Your task to perform on an android device: Go to network settings Image 0: 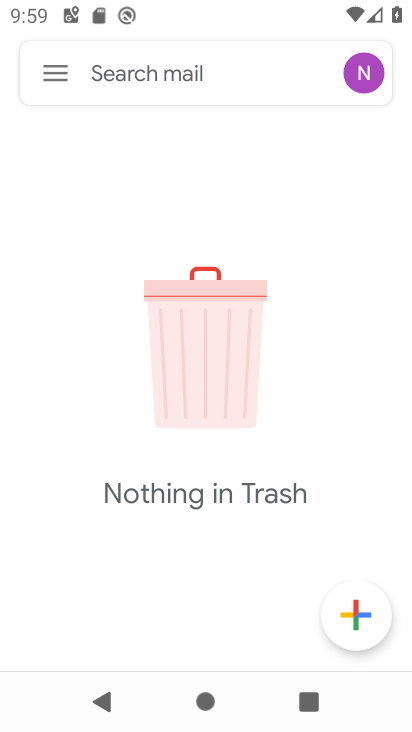
Step 0: press home button
Your task to perform on an android device: Go to network settings Image 1: 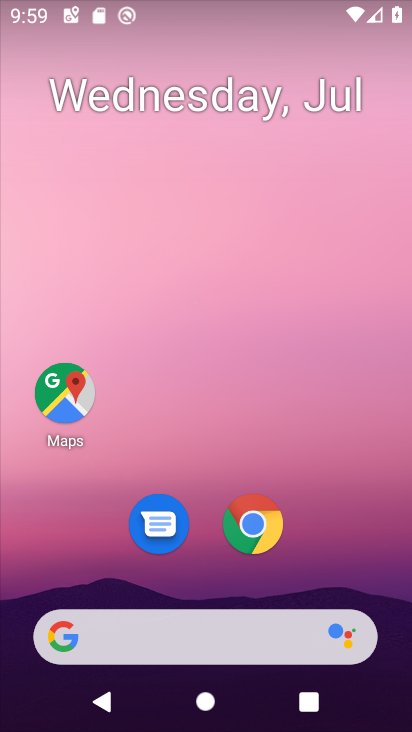
Step 1: drag from (314, 552) to (264, 94)
Your task to perform on an android device: Go to network settings Image 2: 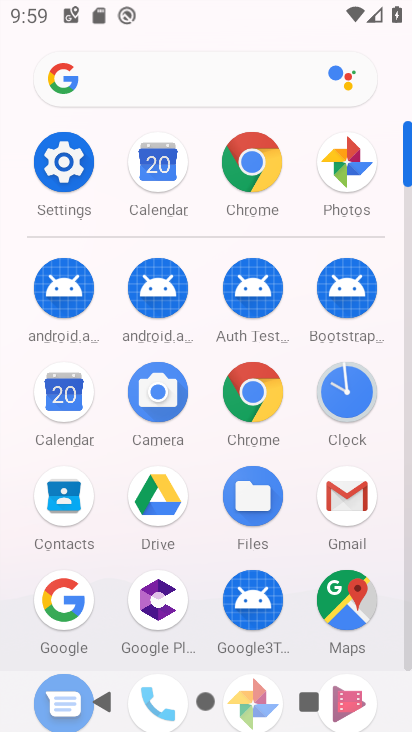
Step 2: click (76, 177)
Your task to perform on an android device: Go to network settings Image 3: 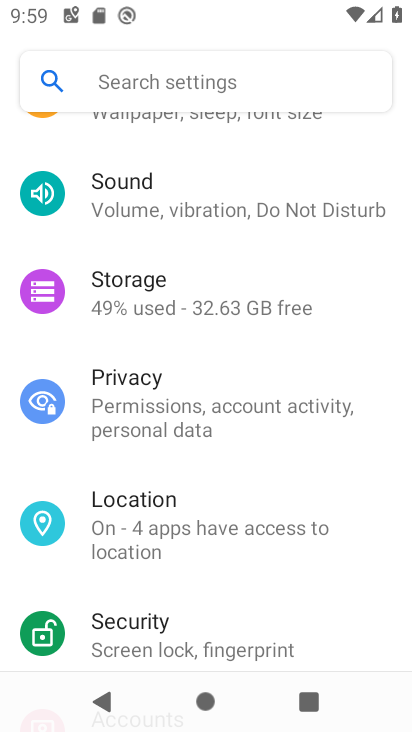
Step 3: drag from (241, 149) to (235, 565)
Your task to perform on an android device: Go to network settings Image 4: 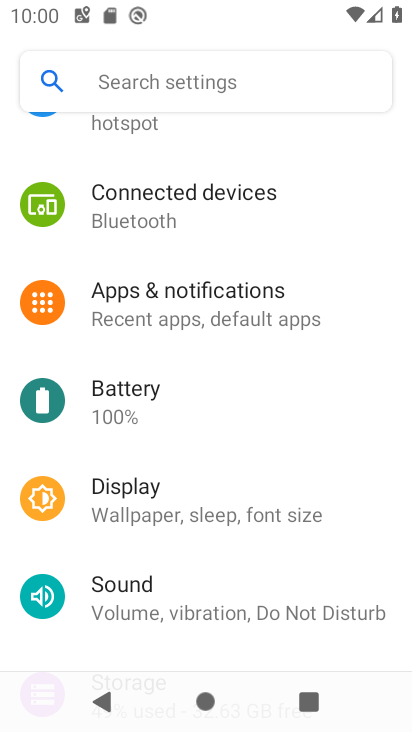
Step 4: drag from (203, 158) to (235, 536)
Your task to perform on an android device: Go to network settings Image 5: 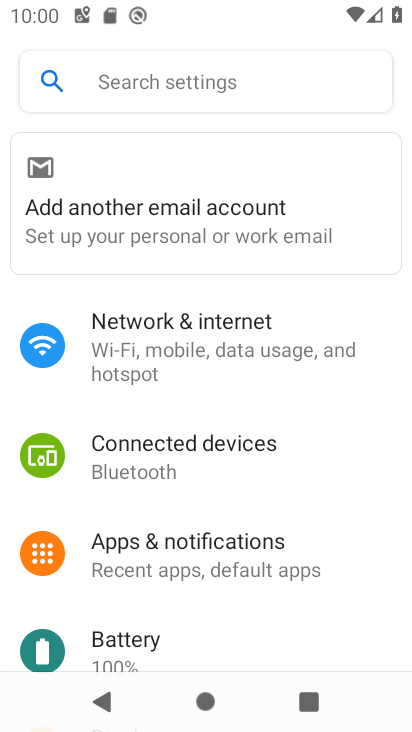
Step 5: click (215, 346)
Your task to perform on an android device: Go to network settings Image 6: 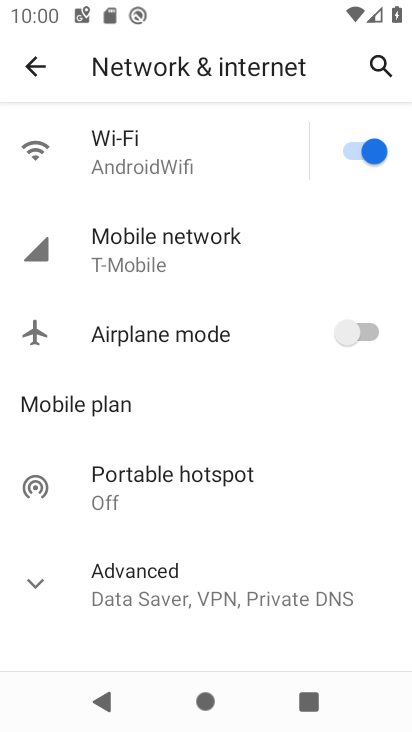
Step 6: task complete